Your task to perform on an android device: Open Google Image 0: 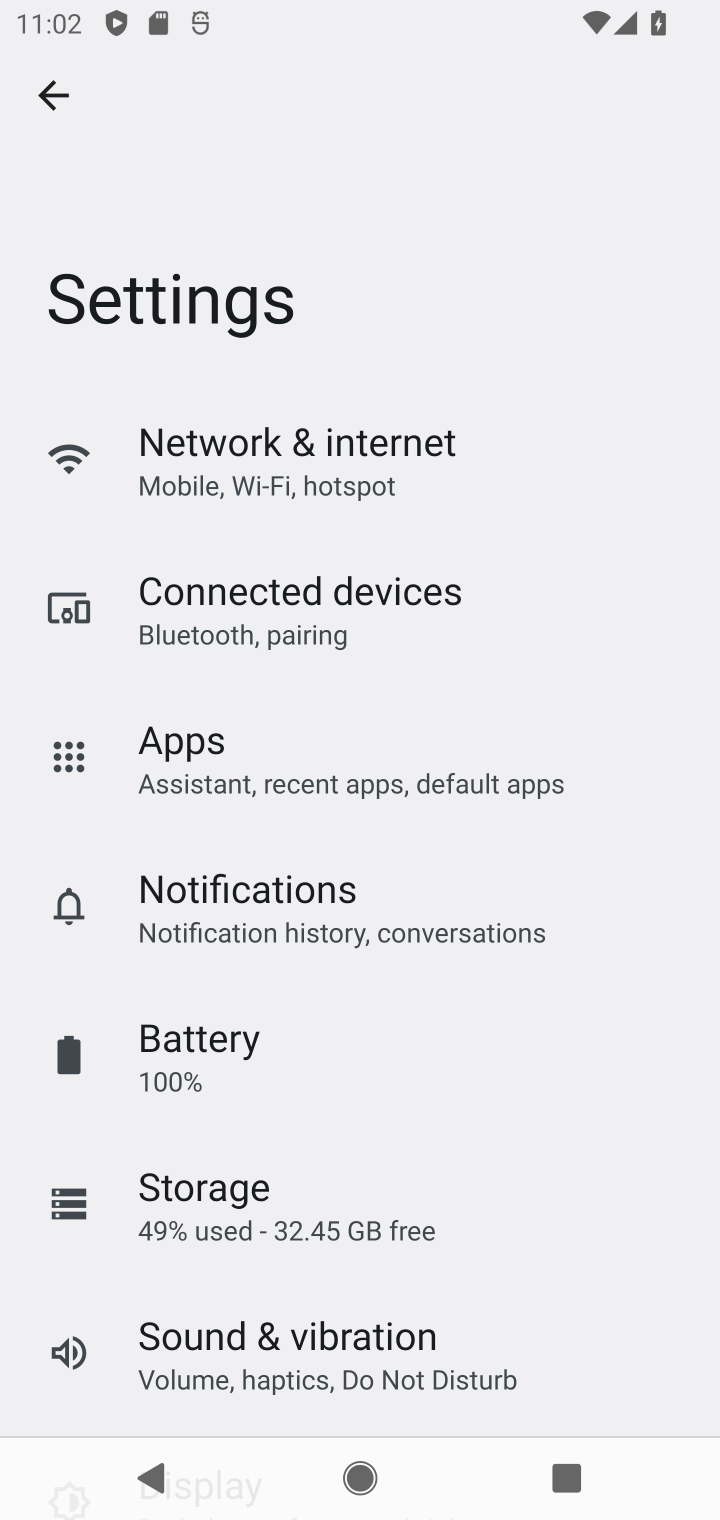
Step 0: press home button
Your task to perform on an android device: Open Google Image 1: 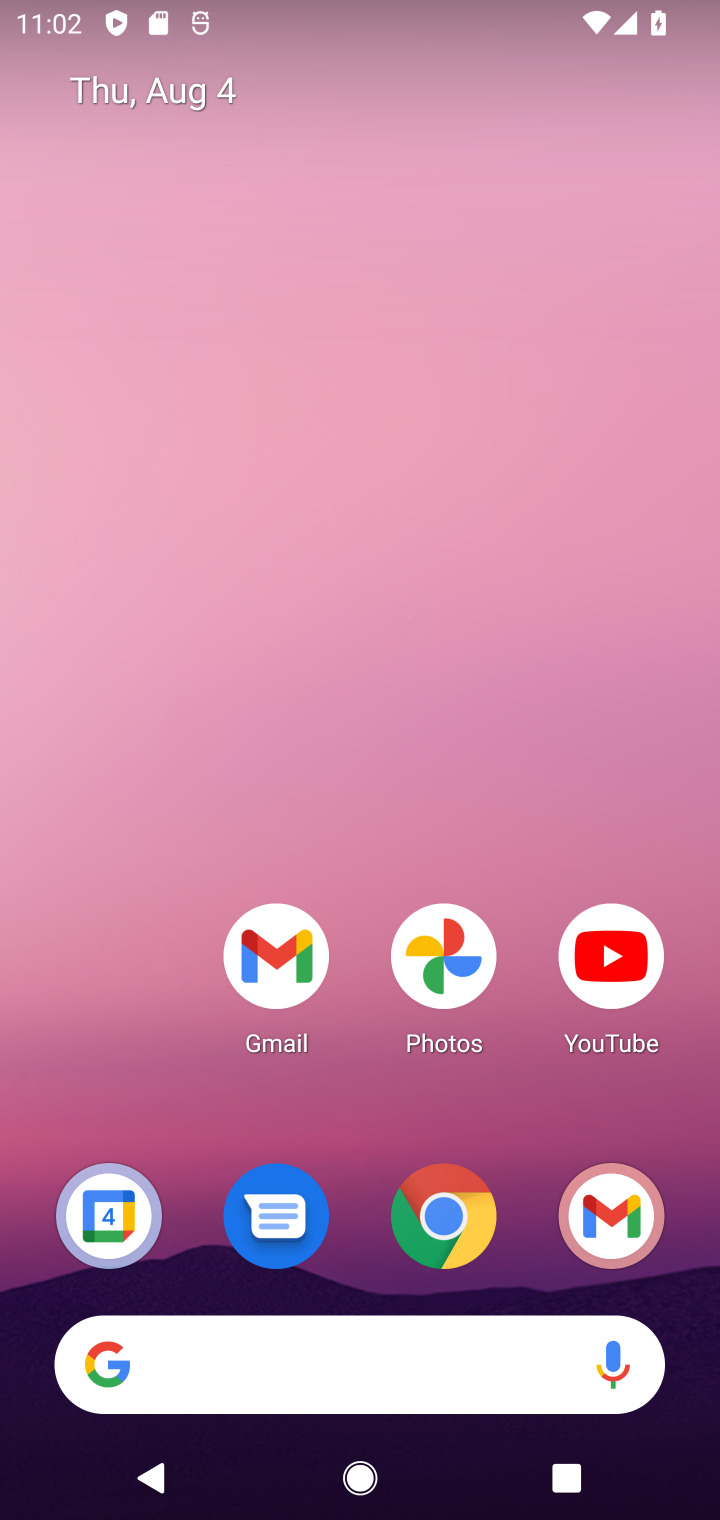
Step 1: click (381, 1392)
Your task to perform on an android device: Open Google Image 2: 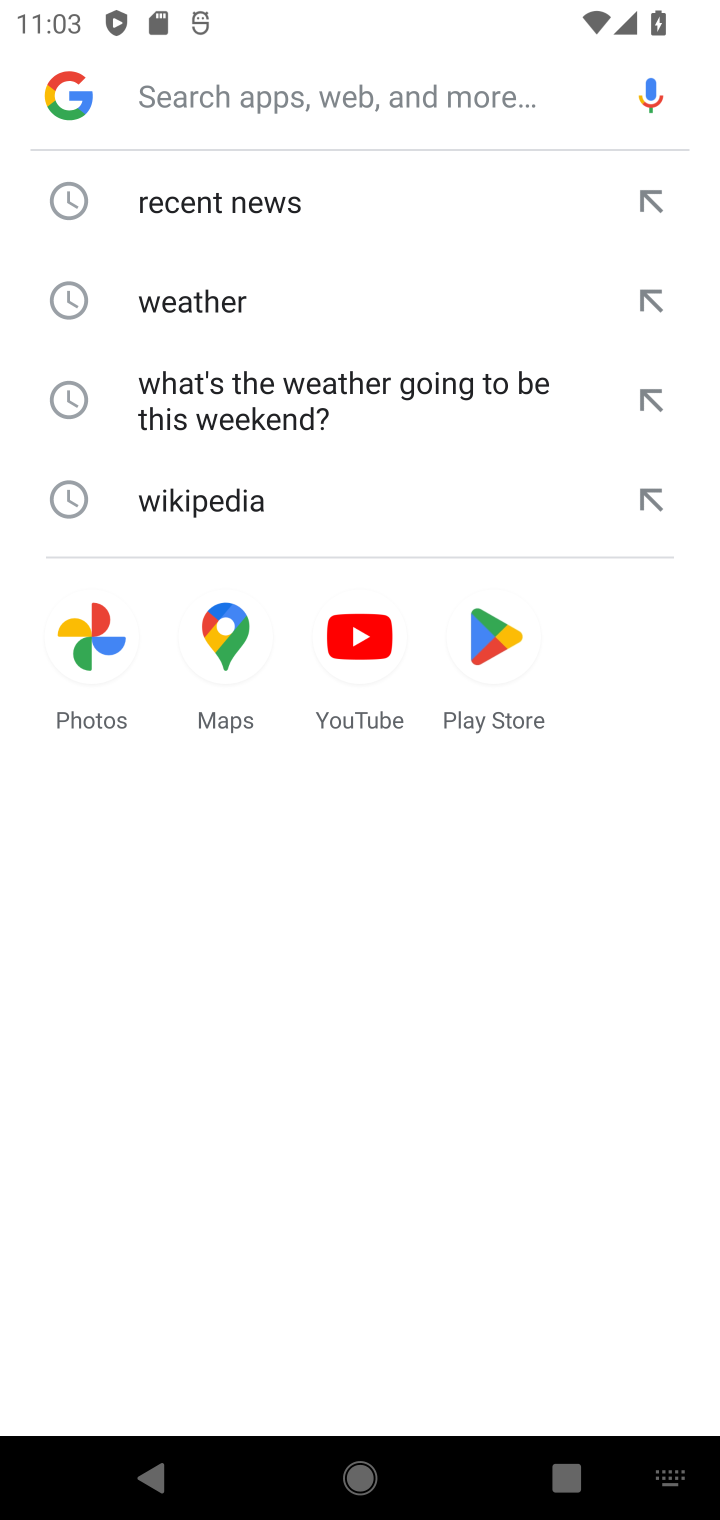
Step 2: click (75, 82)
Your task to perform on an android device: Open Google Image 3: 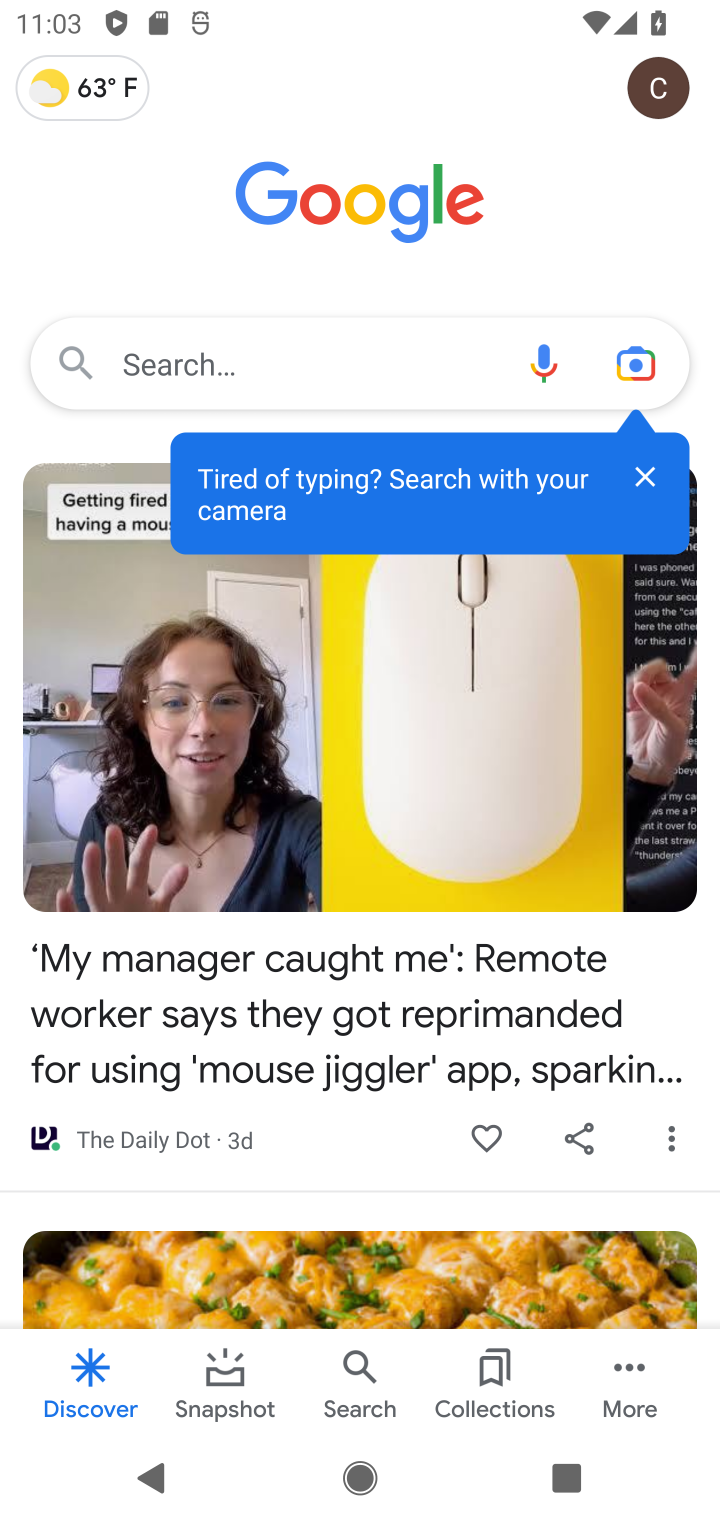
Step 3: task complete